Your task to perform on an android device: What is the recent news? Image 0: 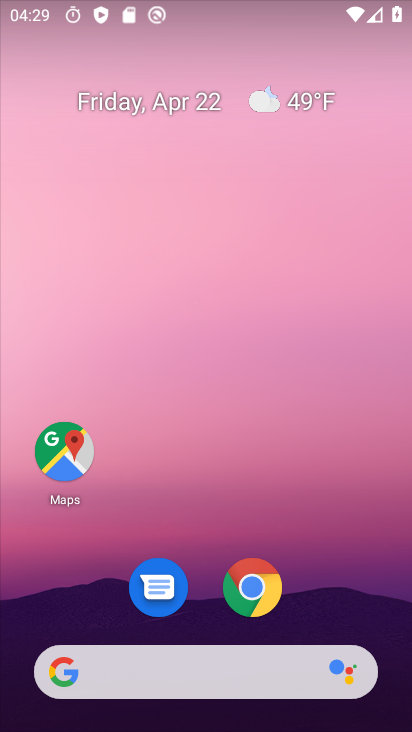
Step 0: drag from (370, 607) to (375, 495)
Your task to perform on an android device: What is the recent news? Image 1: 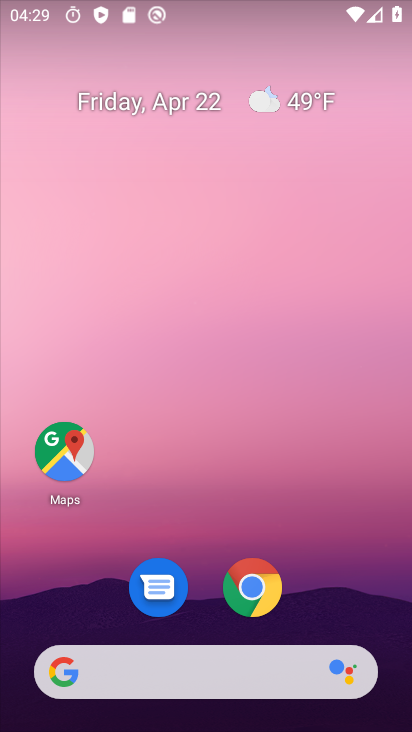
Step 1: task complete